Your task to perform on an android device: Go to accessibility settings Image 0: 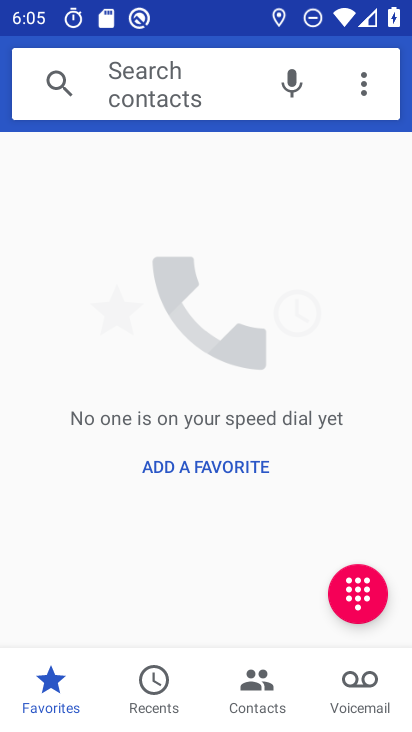
Step 0: press back button
Your task to perform on an android device: Go to accessibility settings Image 1: 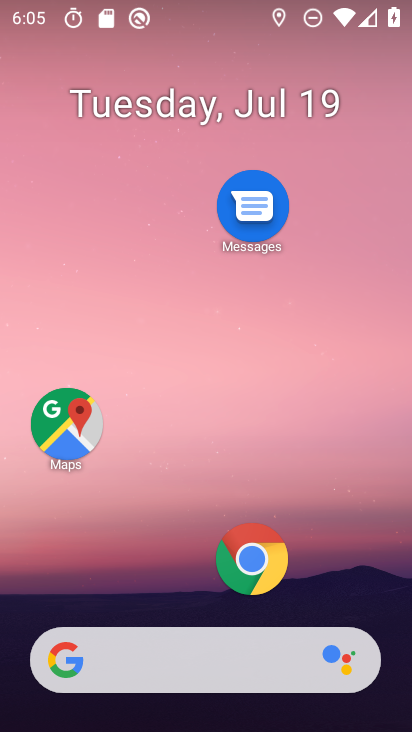
Step 1: drag from (145, 523) to (203, 68)
Your task to perform on an android device: Go to accessibility settings Image 2: 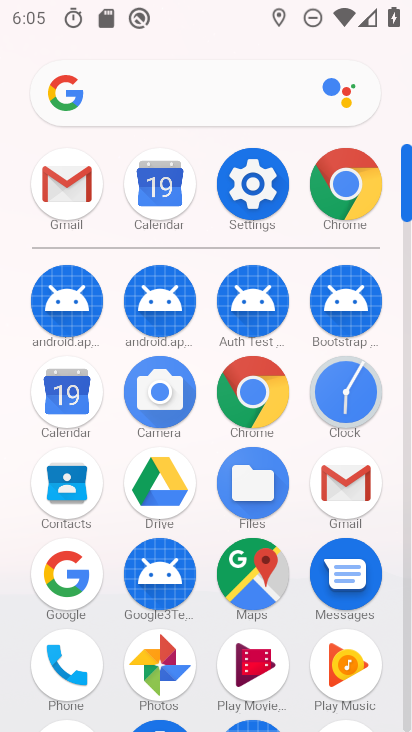
Step 2: click (254, 193)
Your task to perform on an android device: Go to accessibility settings Image 3: 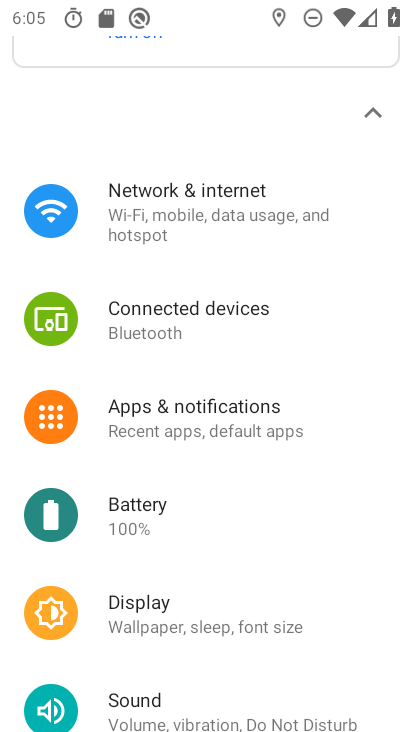
Step 3: drag from (192, 621) to (226, 248)
Your task to perform on an android device: Go to accessibility settings Image 4: 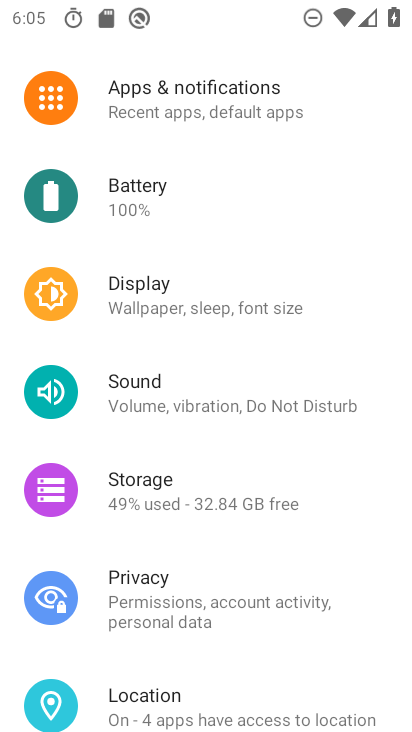
Step 4: drag from (173, 684) to (253, 100)
Your task to perform on an android device: Go to accessibility settings Image 5: 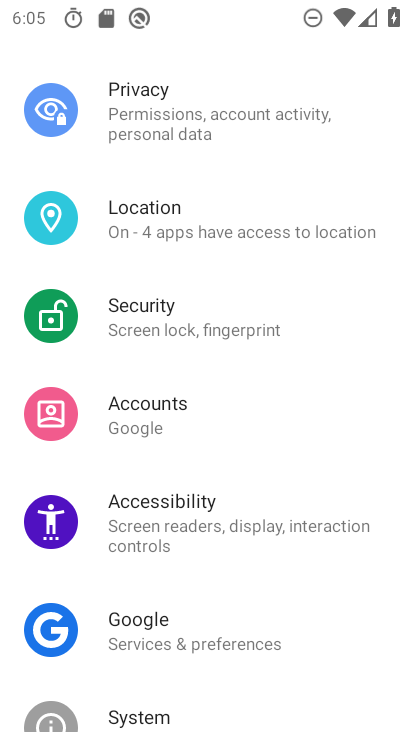
Step 5: click (196, 533)
Your task to perform on an android device: Go to accessibility settings Image 6: 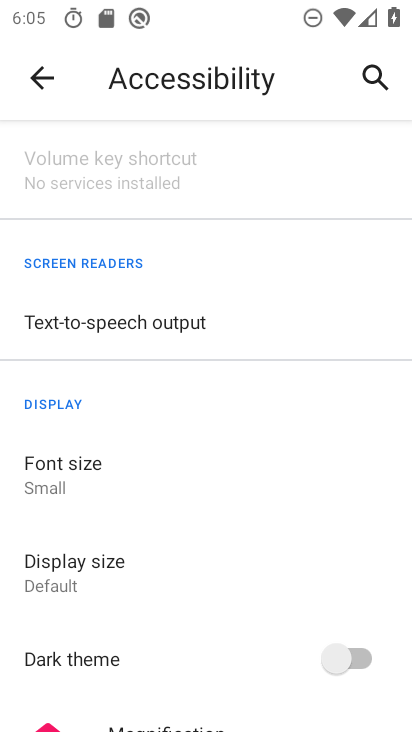
Step 6: task complete